Your task to perform on an android device: search for starred emails in the gmail app Image 0: 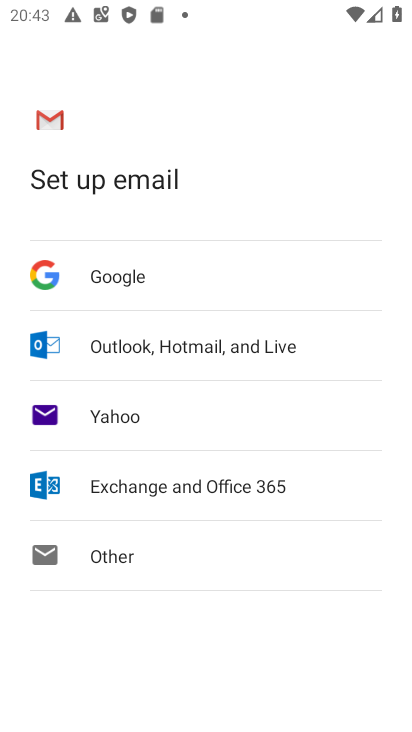
Step 0: press home button
Your task to perform on an android device: search for starred emails in the gmail app Image 1: 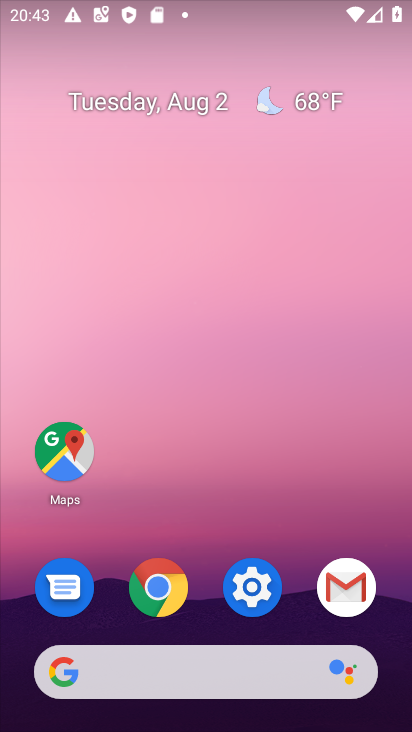
Step 1: click (353, 587)
Your task to perform on an android device: search for starred emails in the gmail app Image 2: 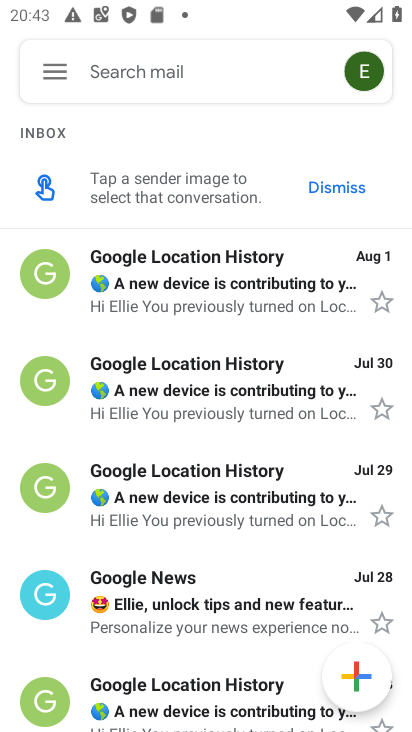
Step 2: click (46, 66)
Your task to perform on an android device: search for starred emails in the gmail app Image 3: 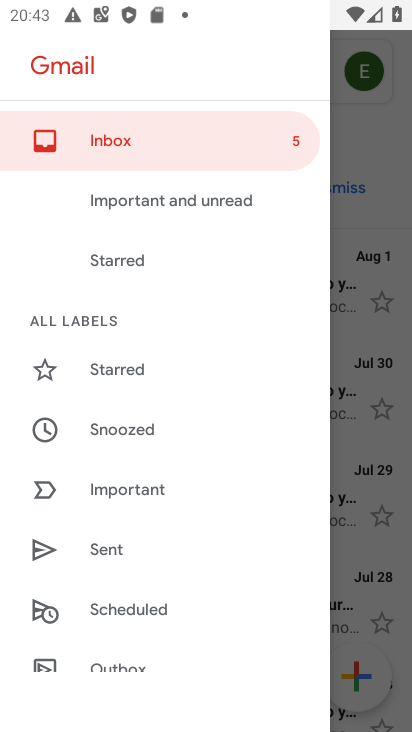
Step 3: click (120, 264)
Your task to perform on an android device: search for starred emails in the gmail app Image 4: 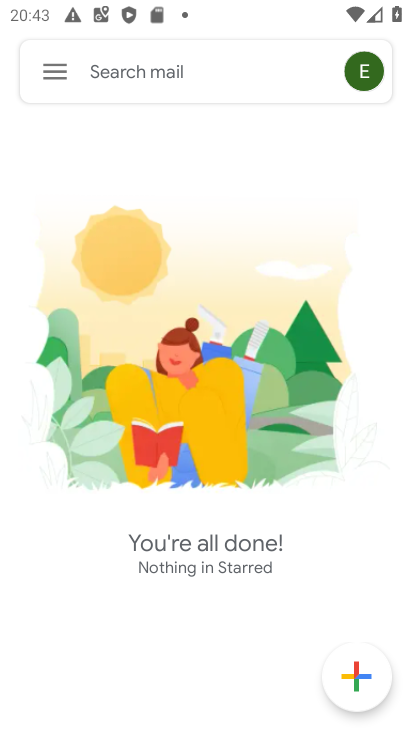
Step 4: task complete